Your task to perform on an android device: When is my next appointment? Image 0: 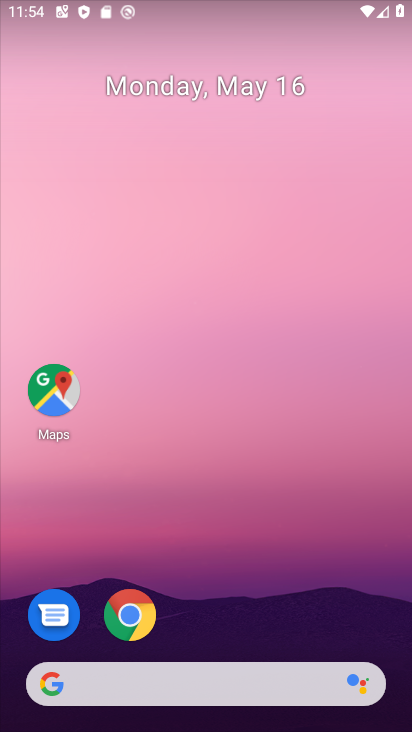
Step 0: drag from (179, 642) to (175, 223)
Your task to perform on an android device: When is my next appointment? Image 1: 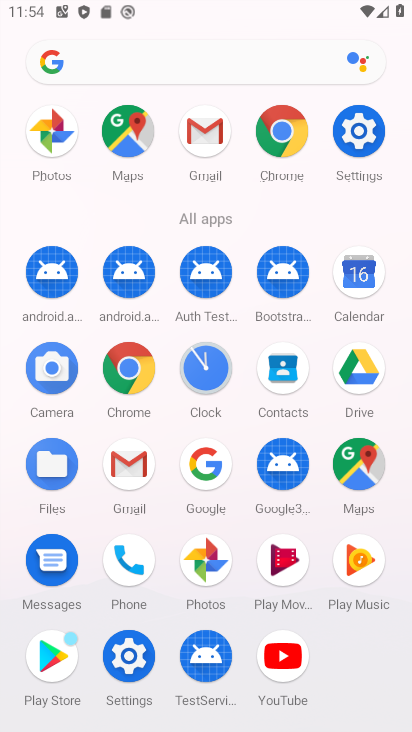
Step 1: click (350, 273)
Your task to perform on an android device: When is my next appointment? Image 2: 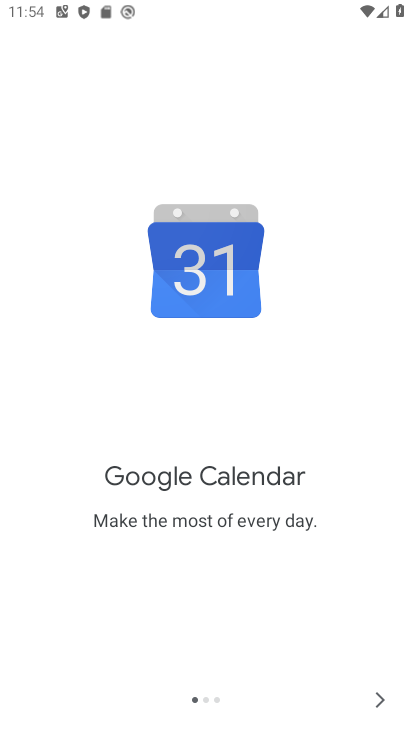
Step 2: click (381, 698)
Your task to perform on an android device: When is my next appointment? Image 3: 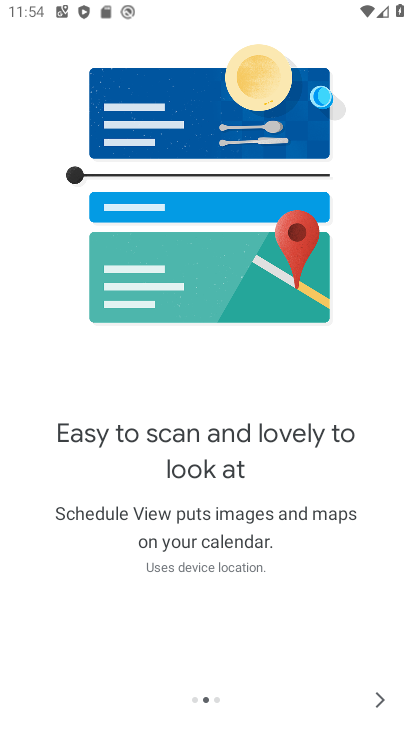
Step 3: click (376, 698)
Your task to perform on an android device: When is my next appointment? Image 4: 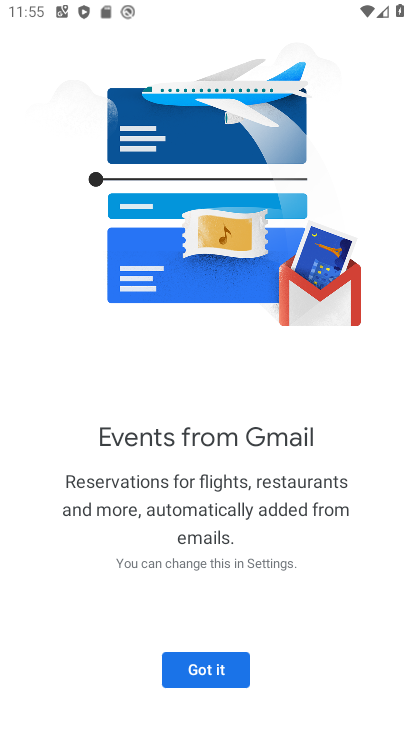
Step 4: click (240, 665)
Your task to perform on an android device: When is my next appointment? Image 5: 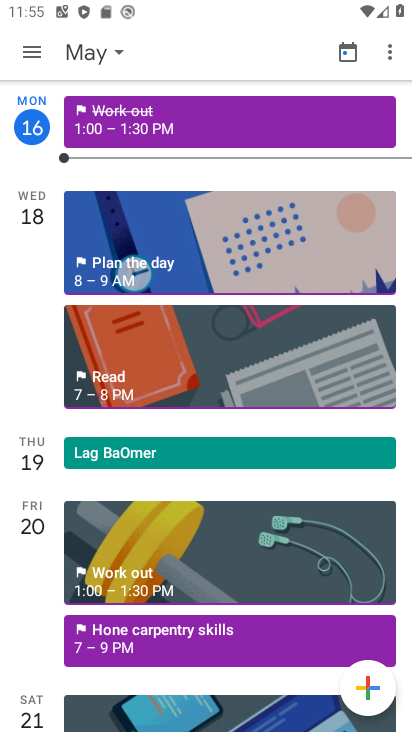
Step 5: drag from (125, 110) to (148, 432)
Your task to perform on an android device: When is my next appointment? Image 6: 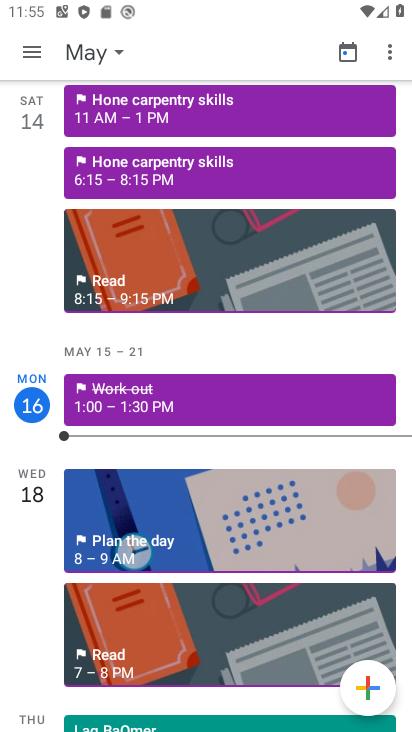
Step 6: drag from (145, 172) to (130, 556)
Your task to perform on an android device: When is my next appointment? Image 7: 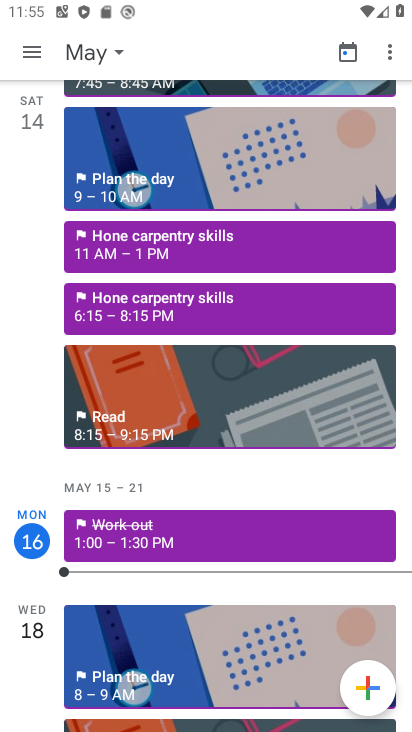
Step 7: drag from (166, 160) to (167, 506)
Your task to perform on an android device: When is my next appointment? Image 8: 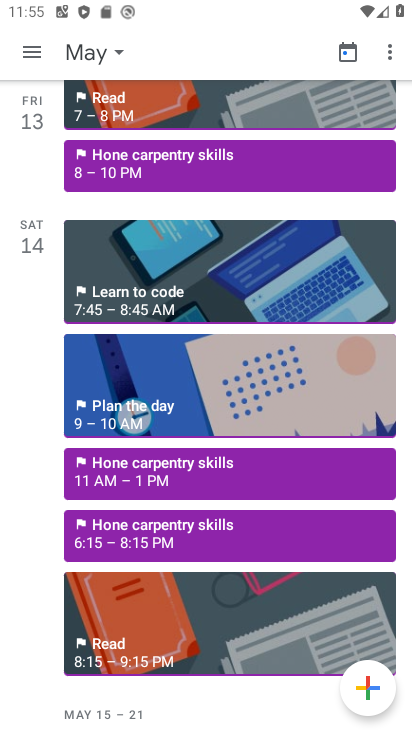
Step 8: drag from (203, 142) to (188, 409)
Your task to perform on an android device: When is my next appointment? Image 9: 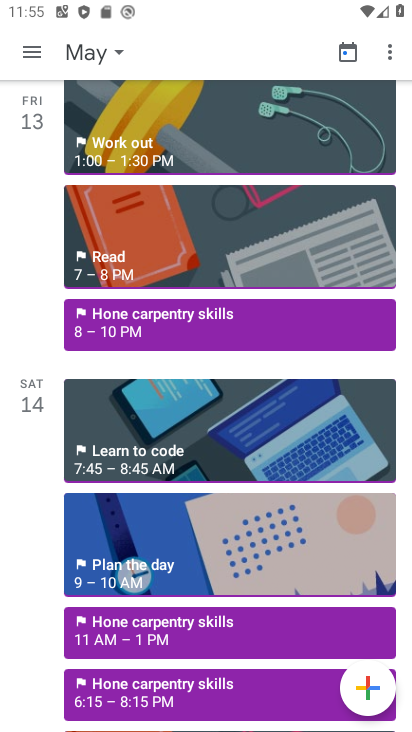
Step 9: drag from (199, 487) to (255, 1)
Your task to perform on an android device: When is my next appointment? Image 10: 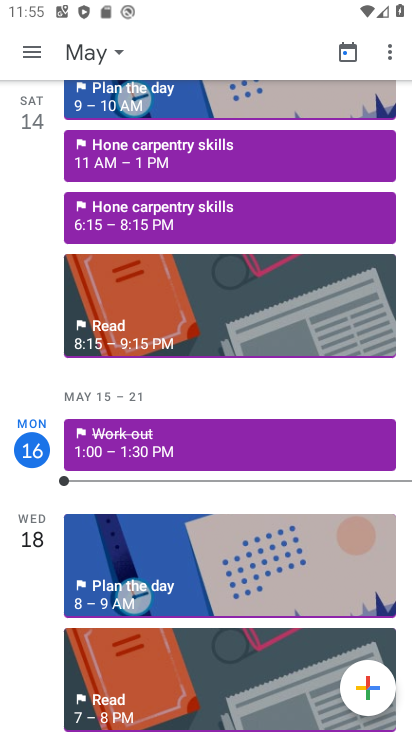
Step 10: drag from (206, 537) to (202, 147)
Your task to perform on an android device: When is my next appointment? Image 11: 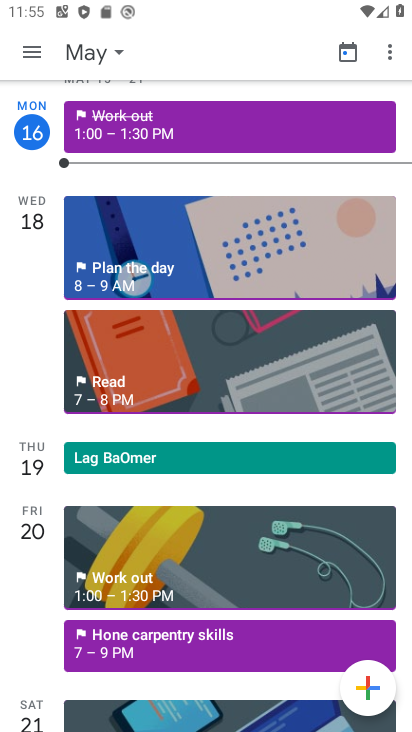
Step 11: click (169, 136)
Your task to perform on an android device: When is my next appointment? Image 12: 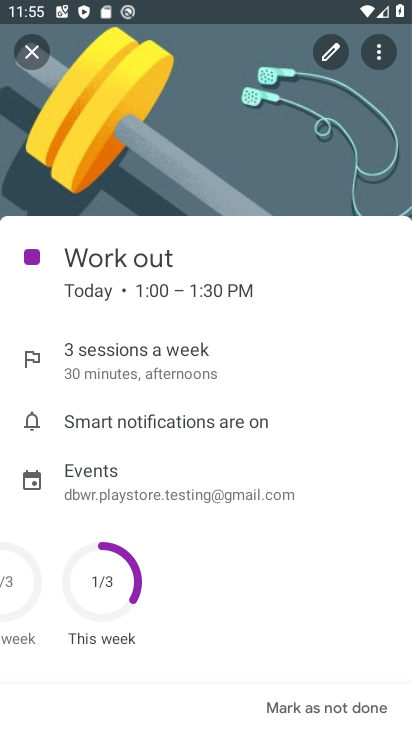
Step 12: task complete